Your task to perform on an android device: Do I have any events this weekend? Image 0: 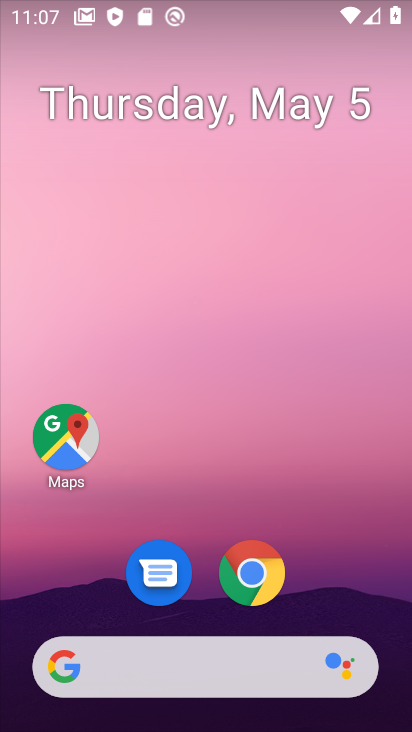
Step 0: drag from (211, 485) to (215, 0)
Your task to perform on an android device: Do I have any events this weekend? Image 1: 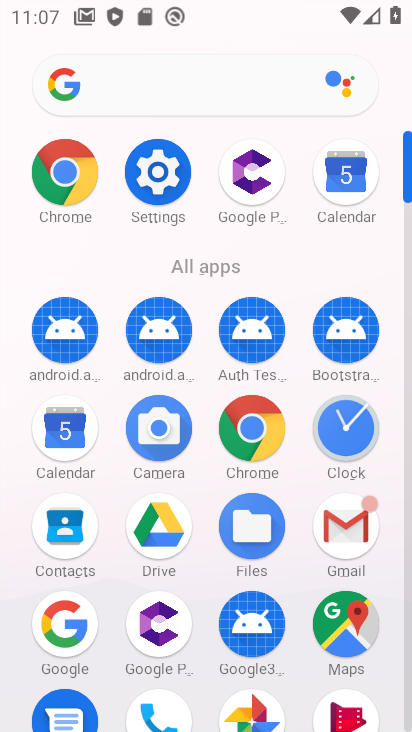
Step 1: click (67, 428)
Your task to perform on an android device: Do I have any events this weekend? Image 2: 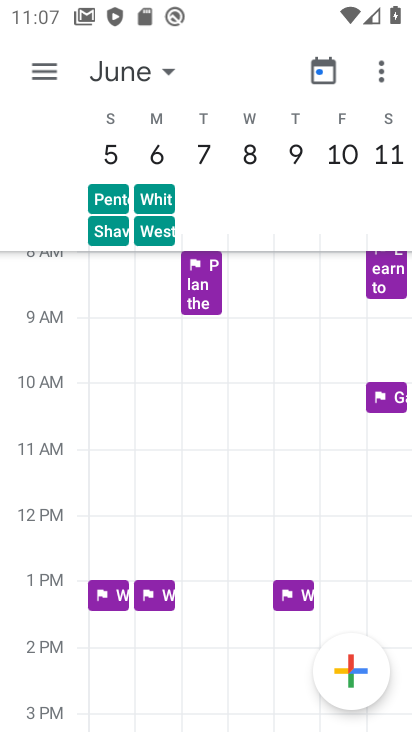
Step 2: click (328, 68)
Your task to perform on an android device: Do I have any events this weekend? Image 3: 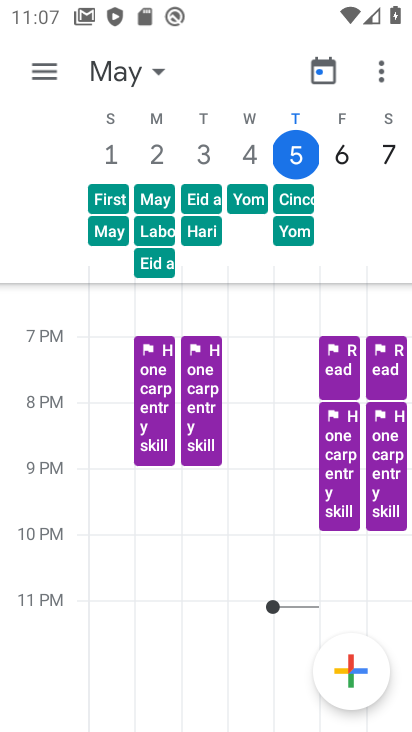
Step 3: click (159, 74)
Your task to perform on an android device: Do I have any events this weekend? Image 4: 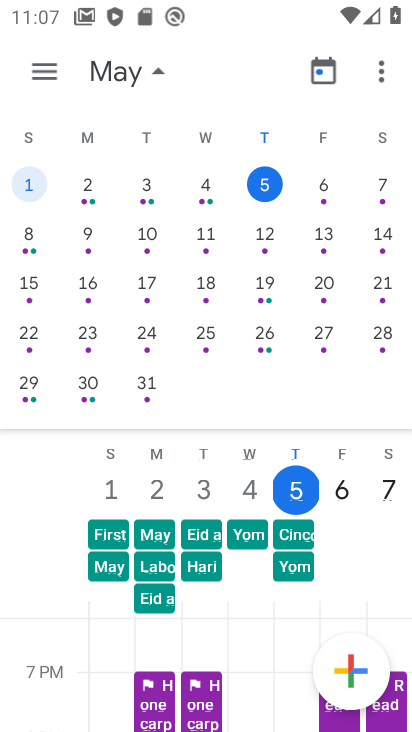
Step 4: click (380, 184)
Your task to perform on an android device: Do I have any events this weekend? Image 5: 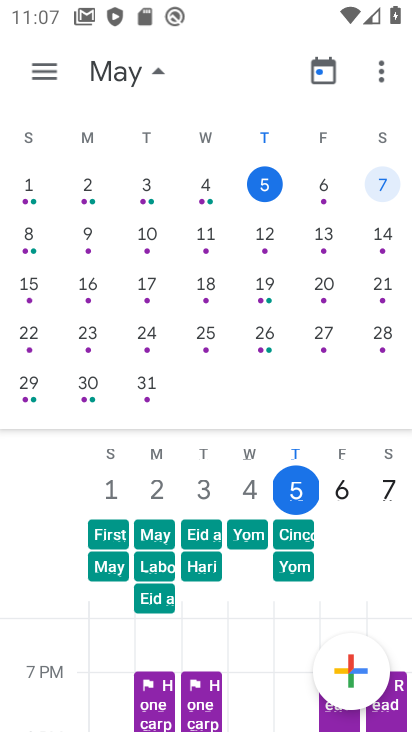
Step 5: click (48, 77)
Your task to perform on an android device: Do I have any events this weekend? Image 6: 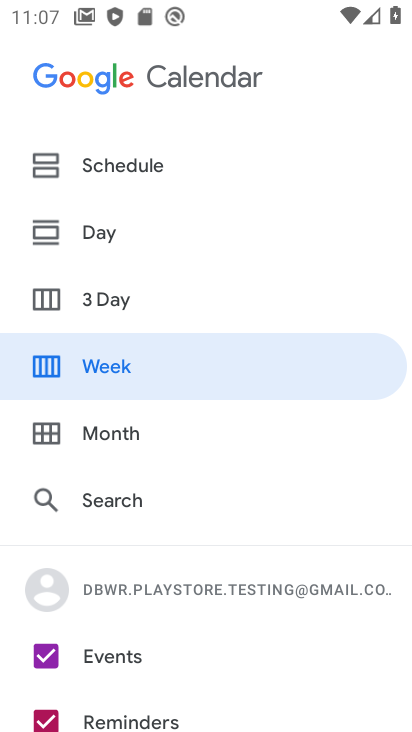
Step 6: click (138, 366)
Your task to perform on an android device: Do I have any events this weekend? Image 7: 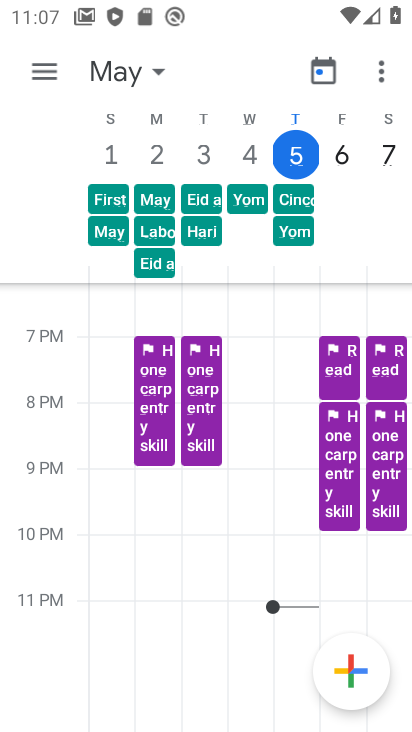
Step 7: task complete